Your task to perform on an android device: Open the Play Movies app and select the watchlist tab. Image 0: 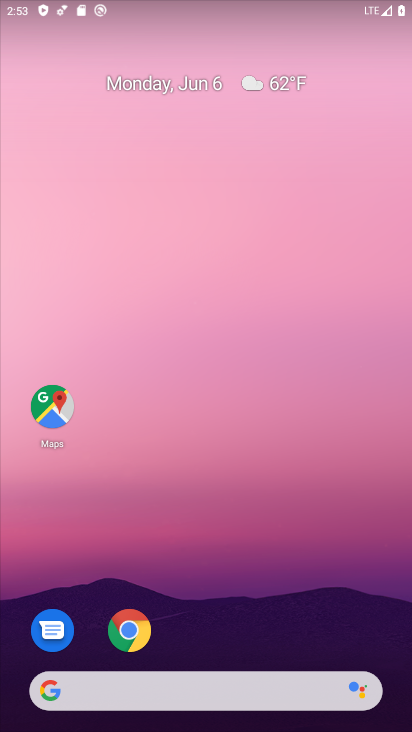
Step 0: drag from (355, 610) to (161, 30)
Your task to perform on an android device: Open the Play Movies app and select the watchlist tab. Image 1: 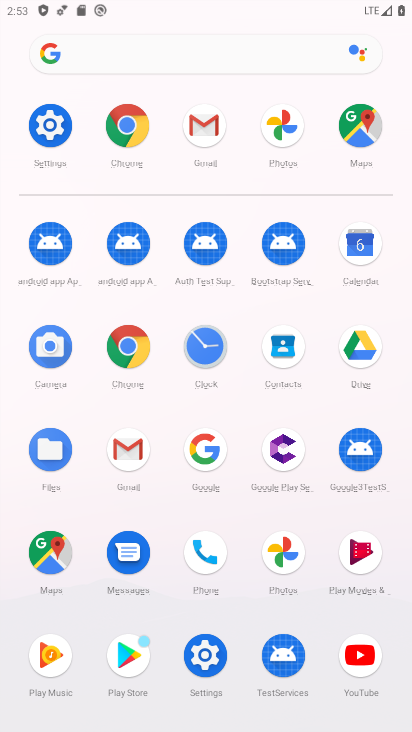
Step 1: click (352, 559)
Your task to perform on an android device: Open the Play Movies app and select the watchlist tab. Image 2: 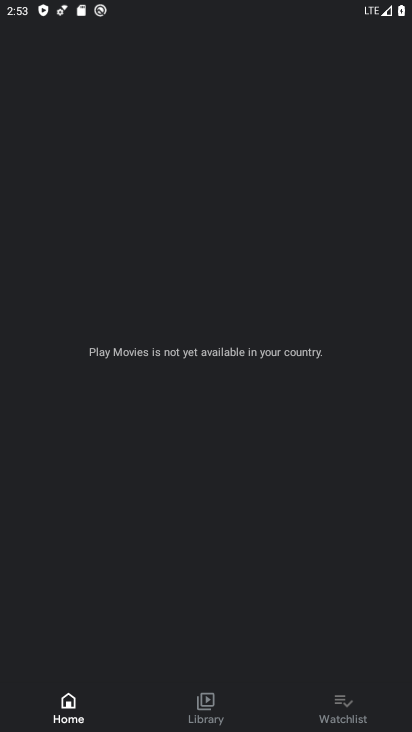
Step 2: click (361, 683)
Your task to perform on an android device: Open the Play Movies app and select the watchlist tab. Image 3: 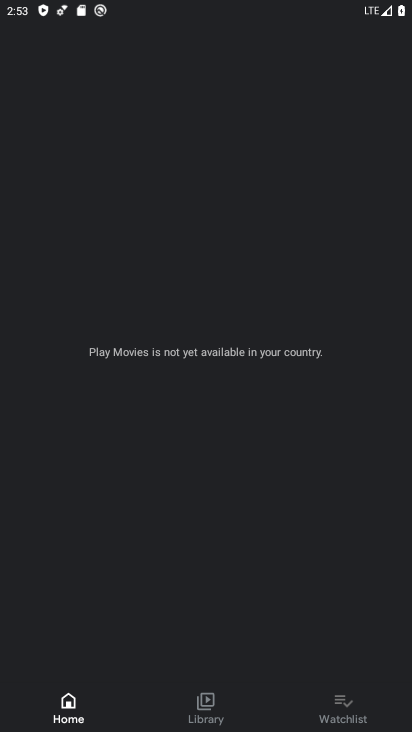
Step 3: click (344, 707)
Your task to perform on an android device: Open the Play Movies app and select the watchlist tab. Image 4: 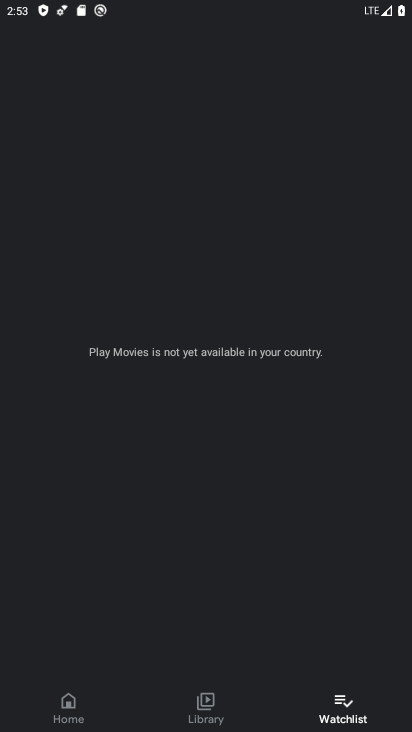
Step 4: task complete